Your task to perform on an android device: What's the weather going to be tomorrow? Image 0: 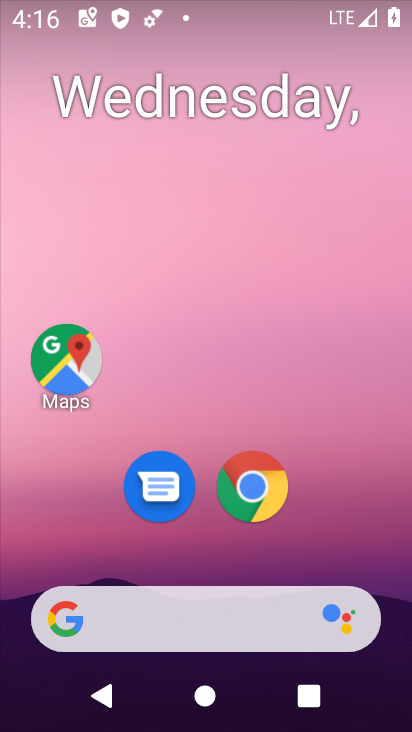
Step 0: drag from (203, 570) to (291, 210)
Your task to perform on an android device: What's the weather going to be tomorrow? Image 1: 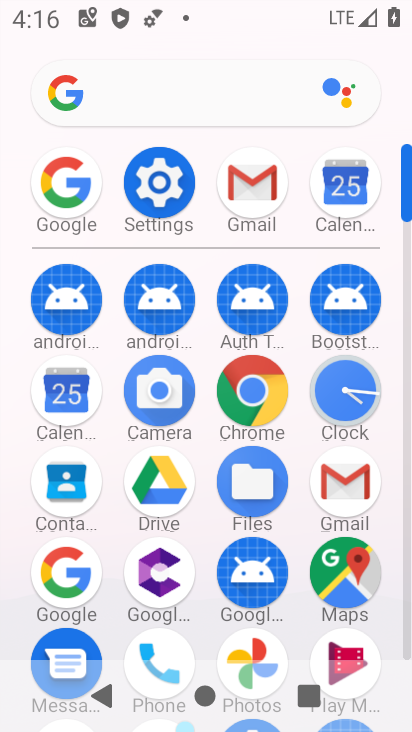
Step 1: click (71, 562)
Your task to perform on an android device: What's the weather going to be tomorrow? Image 2: 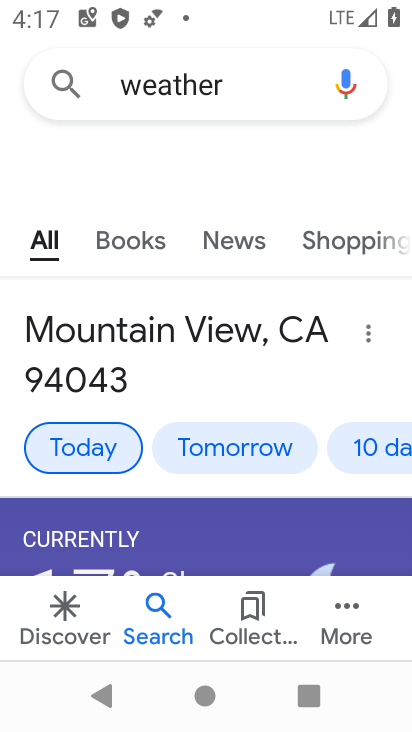
Step 2: click (261, 449)
Your task to perform on an android device: What's the weather going to be tomorrow? Image 3: 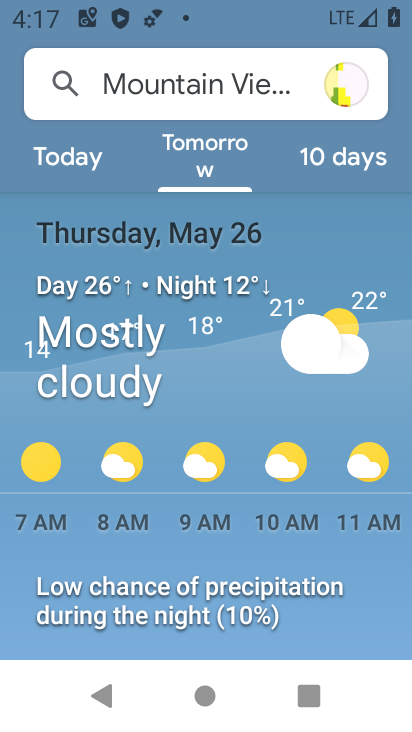
Step 3: task complete